Your task to perform on an android device: turn vacation reply on in the gmail app Image 0: 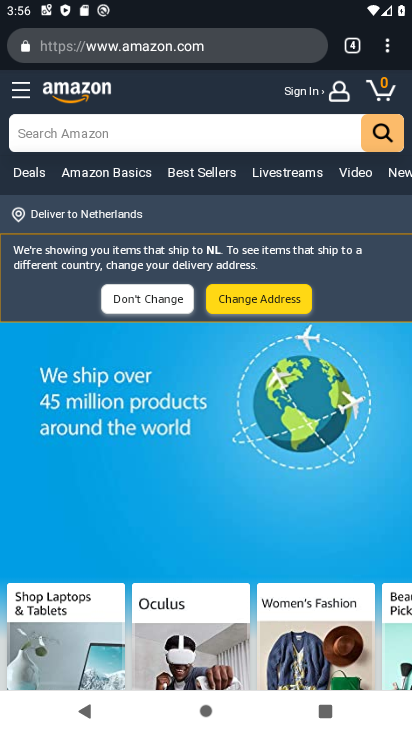
Step 0: press home button
Your task to perform on an android device: turn vacation reply on in the gmail app Image 1: 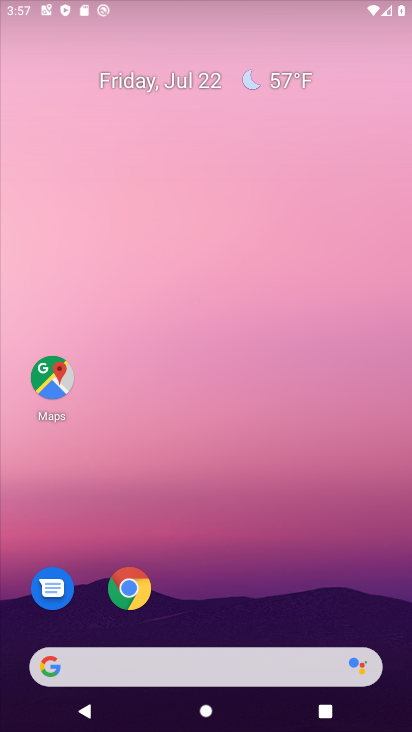
Step 1: drag from (195, 619) to (122, 86)
Your task to perform on an android device: turn vacation reply on in the gmail app Image 2: 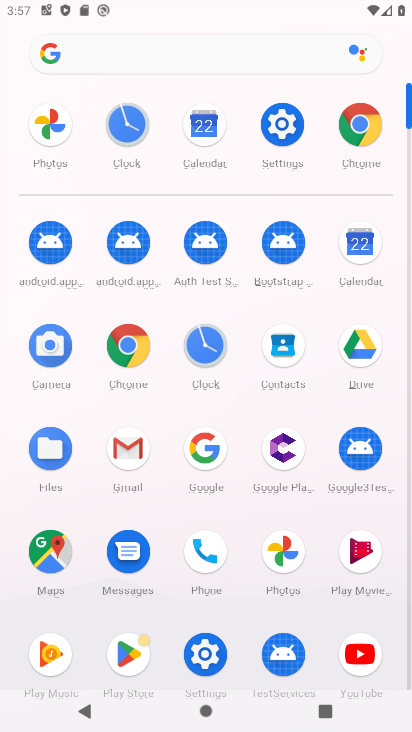
Step 2: click (135, 454)
Your task to perform on an android device: turn vacation reply on in the gmail app Image 3: 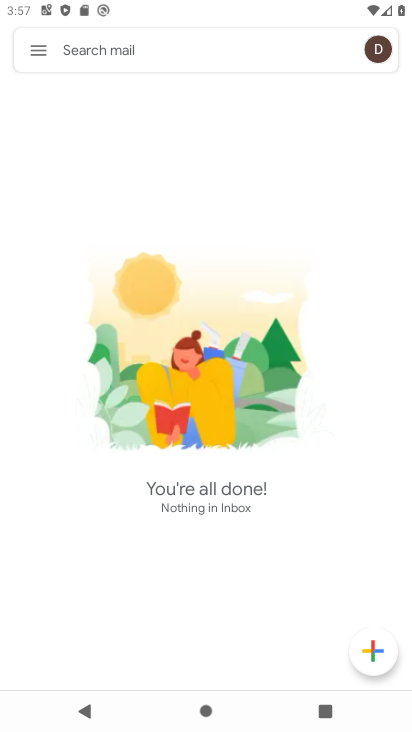
Step 3: click (33, 51)
Your task to perform on an android device: turn vacation reply on in the gmail app Image 4: 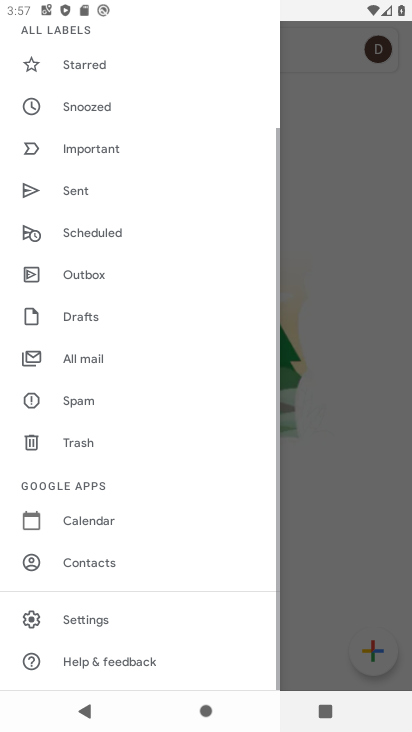
Step 4: click (56, 618)
Your task to perform on an android device: turn vacation reply on in the gmail app Image 5: 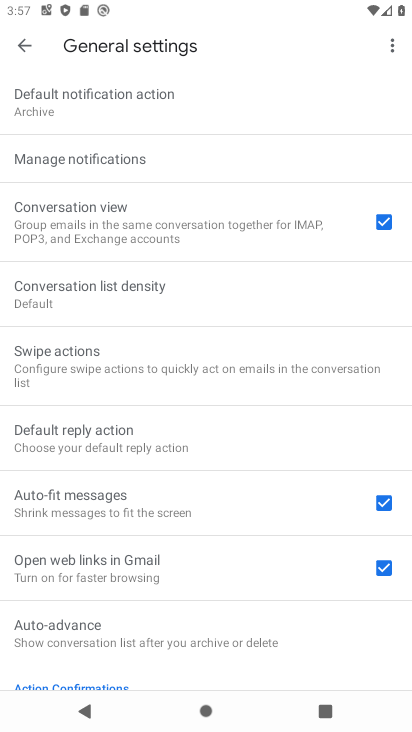
Step 5: drag from (59, 153) to (59, 567)
Your task to perform on an android device: turn vacation reply on in the gmail app Image 6: 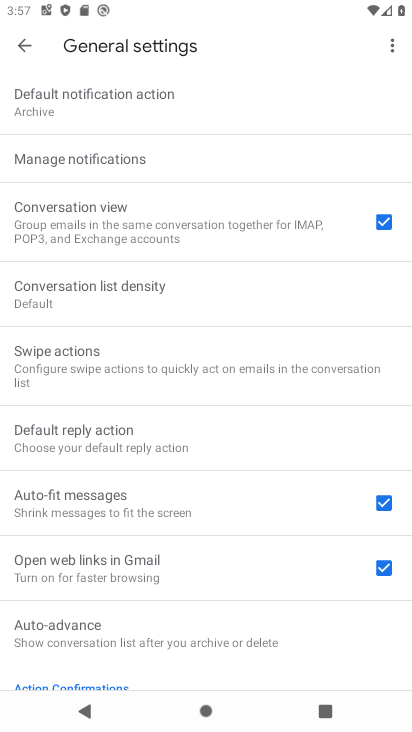
Step 6: click (20, 40)
Your task to perform on an android device: turn vacation reply on in the gmail app Image 7: 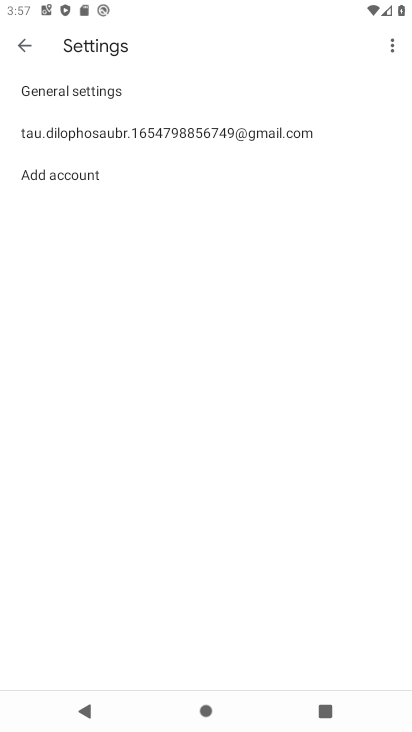
Step 7: click (54, 124)
Your task to perform on an android device: turn vacation reply on in the gmail app Image 8: 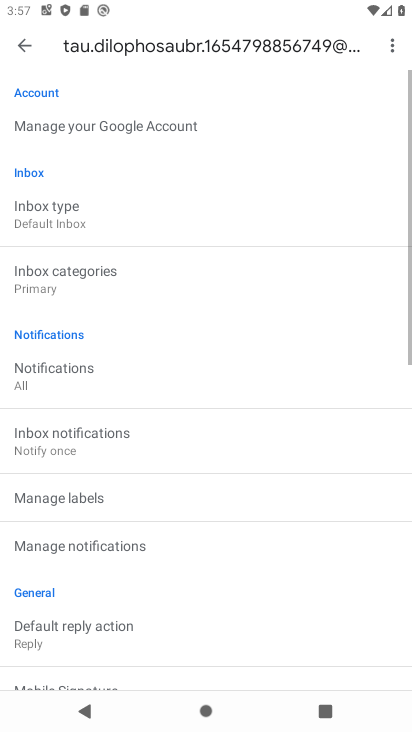
Step 8: drag from (99, 486) to (70, 128)
Your task to perform on an android device: turn vacation reply on in the gmail app Image 9: 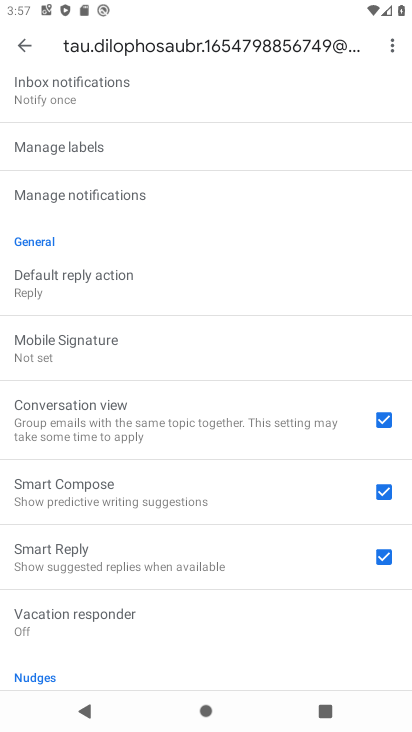
Step 9: click (142, 620)
Your task to perform on an android device: turn vacation reply on in the gmail app Image 10: 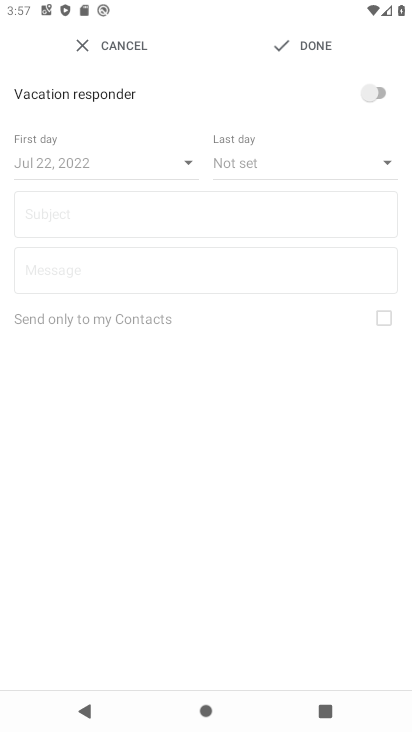
Step 10: click (366, 96)
Your task to perform on an android device: turn vacation reply on in the gmail app Image 11: 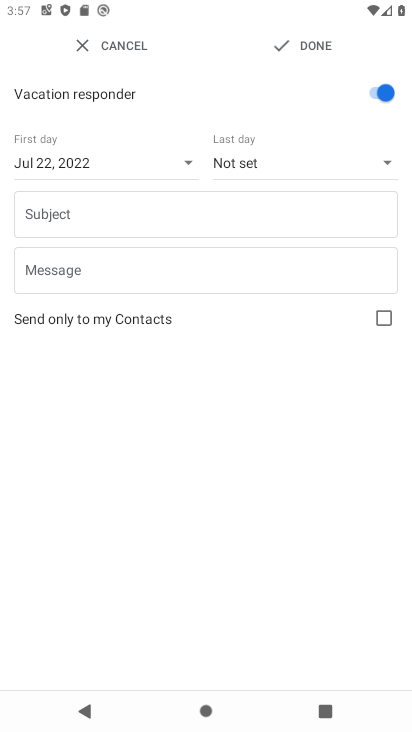
Step 11: click (303, 35)
Your task to perform on an android device: turn vacation reply on in the gmail app Image 12: 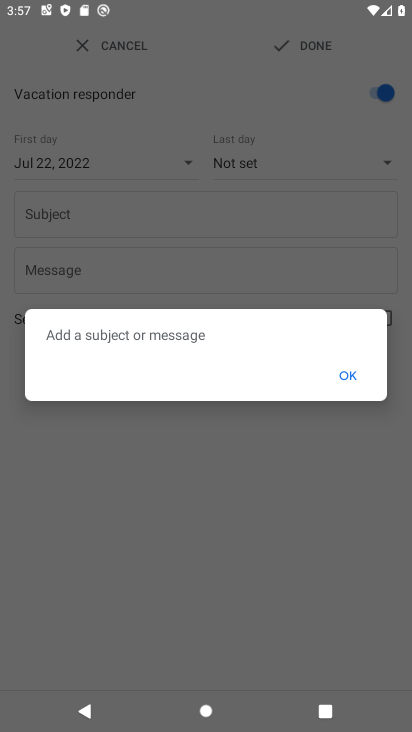
Step 12: task complete